Your task to perform on an android device: Open Google Image 0: 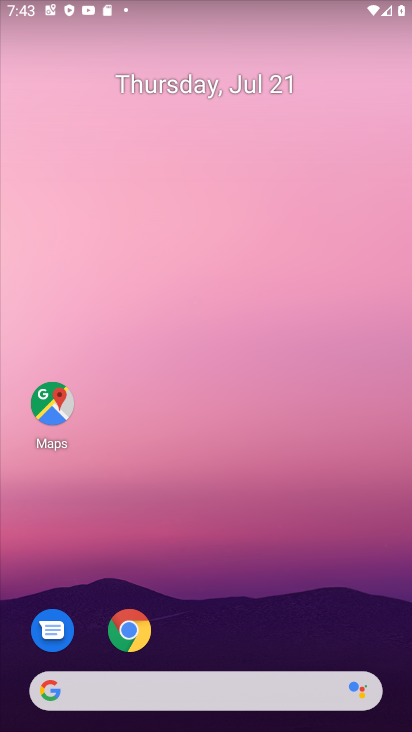
Step 0: drag from (192, 726) to (129, 161)
Your task to perform on an android device: Open Google Image 1: 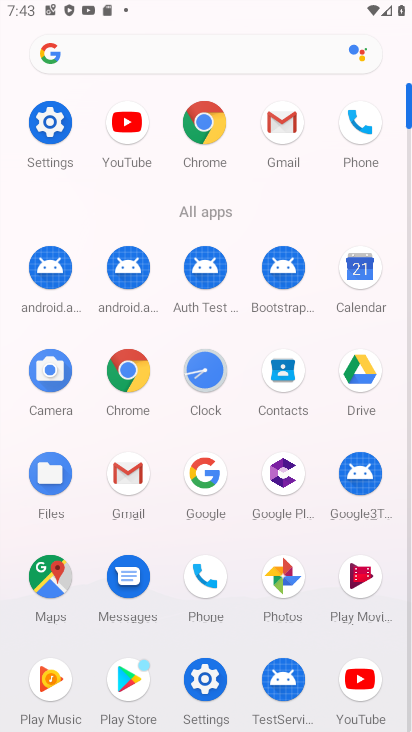
Step 1: click (205, 472)
Your task to perform on an android device: Open Google Image 2: 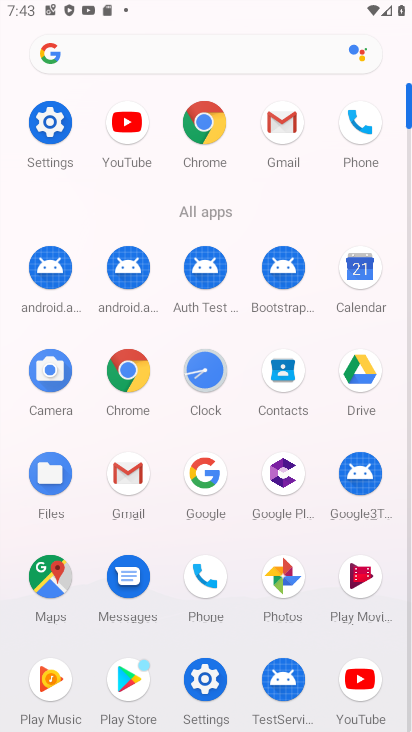
Step 2: click (205, 472)
Your task to perform on an android device: Open Google Image 3: 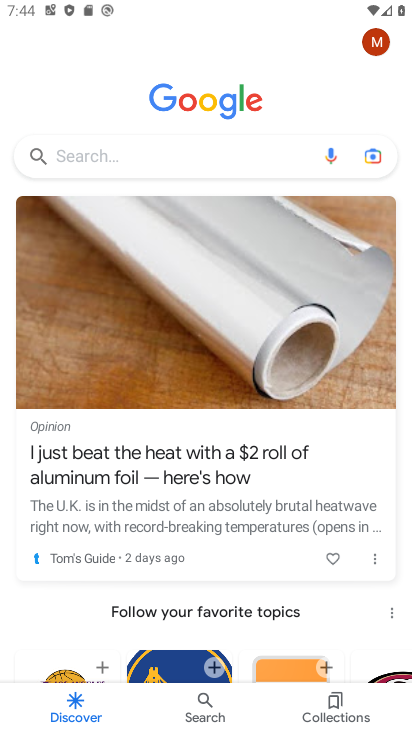
Step 3: task complete